Your task to perform on an android device: Open privacy settings Image 0: 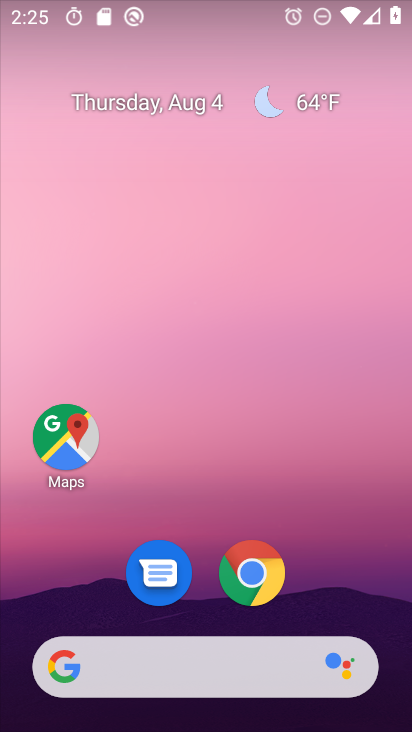
Step 0: drag from (370, 578) to (335, 166)
Your task to perform on an android device: Open privacy settings Image 1: 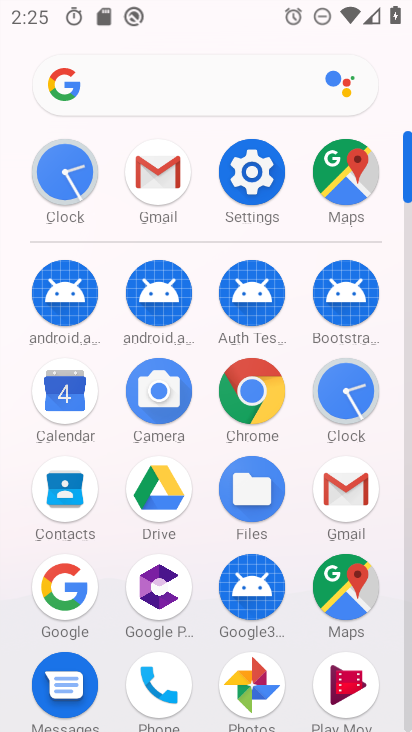
Step 1: click (276, 190)
Your task to perform on an android device: Open privacy settings Image 2: 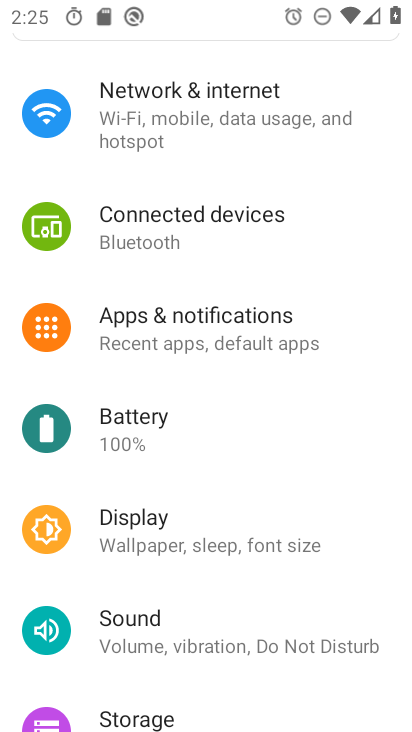
Step 2: drag from (264, 583) to (294, 156)
Your task to perform on an android device: Open privacy settings Image 3: 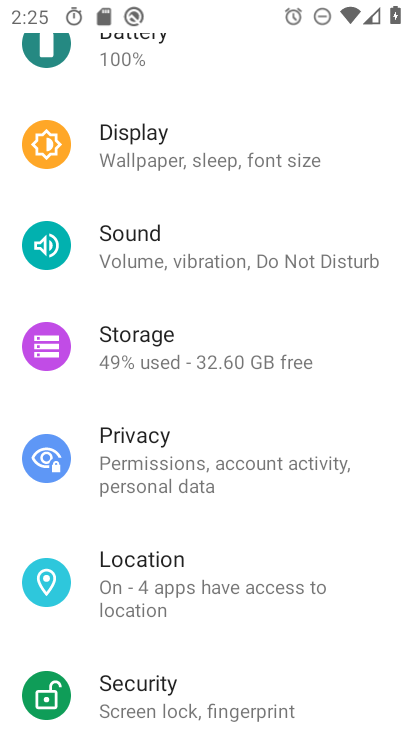
Step 3: click (178, 469)
Your task to perform on an android device: Open privacy settings Image 4: 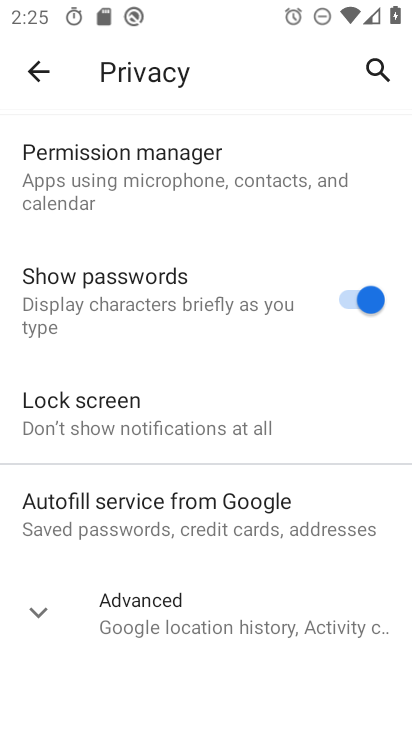
Step 4: task complete